Your task to perform on an android device: Show me productivity apps on the Play Store Image 0: 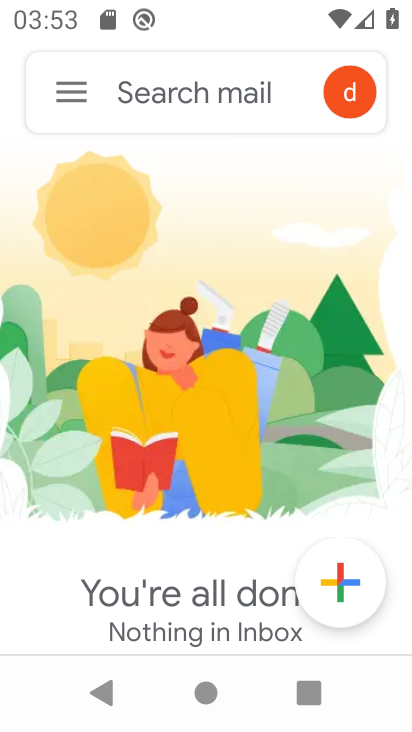
Step 0: drag from (392, 626) to (387, 271)
Your task to perform on an android device: Show me productivity apps on the Play Store Image 1: 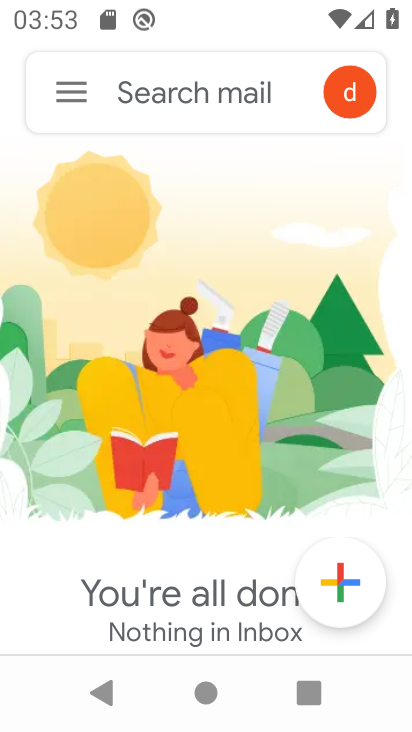
Step 1: press home button
Your task to perform on an android device: Show me productivity apps on the Play Store Image 2: 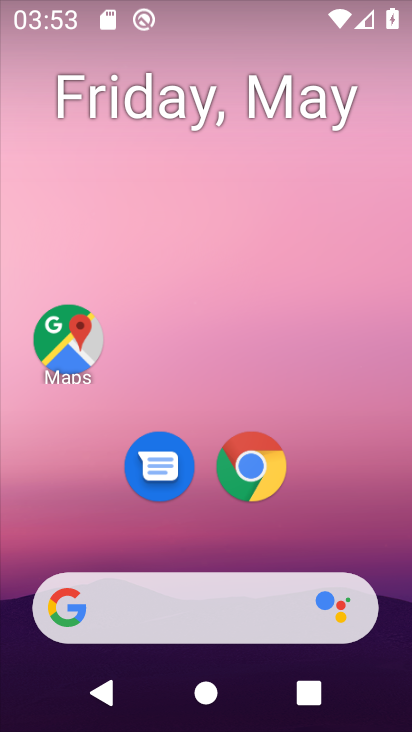
Step 2: click (362, 308)
Your task to perform on an android device: Show me productivity apps on the Play Store Image 3: 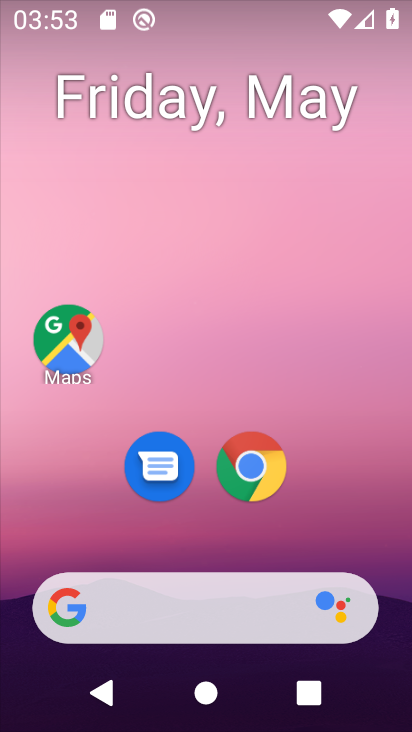
Step 3: drag from (389, 591) to (388, 275)
Your task to perform on an android device: Show me productivity apps on the Play Store Image 4: 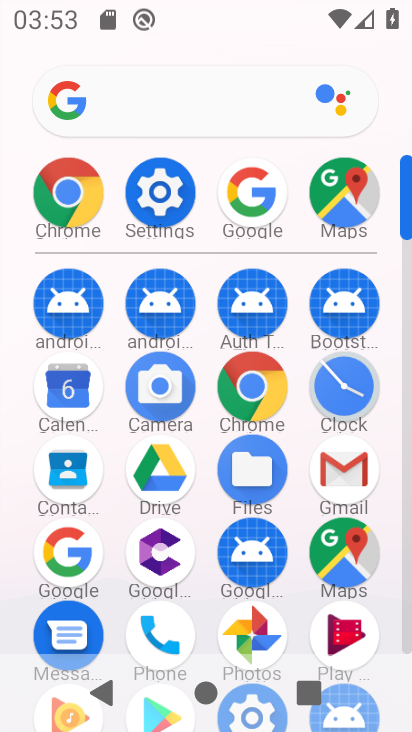
Step 4: drag from (399, 181) to (400, 72)
Your task to perform on an android device: Show me productivity apps on the Play Store Image 5: 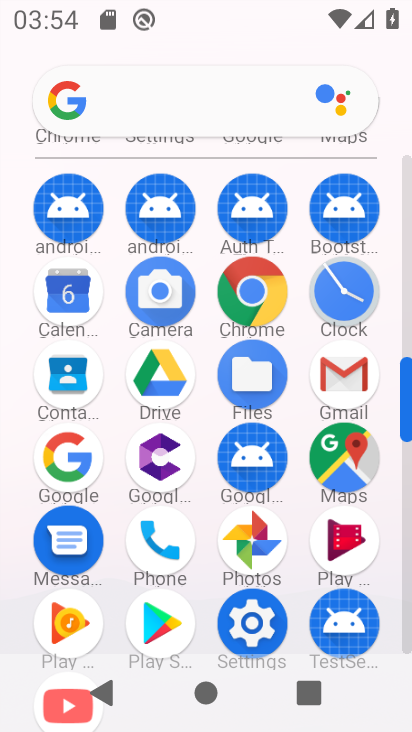
Step 5: click (168, 612)
Your task to perform on an android device: Show me productivity apps on the Play Store Image 6: 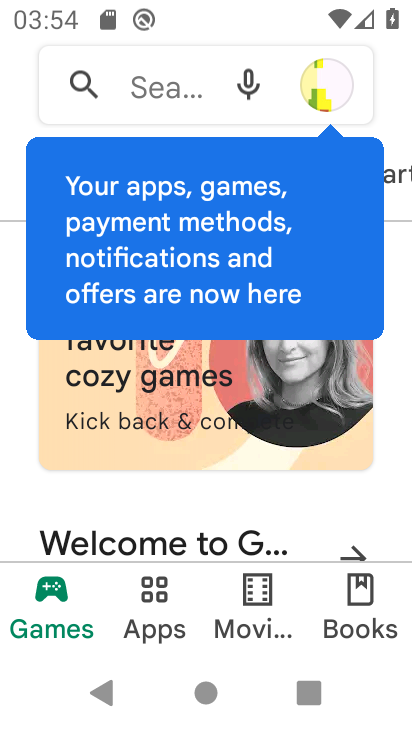
Step 6: click (192, 98)
Your task to perform on an android device: Show me productivity apps on the Play Store Image 7: 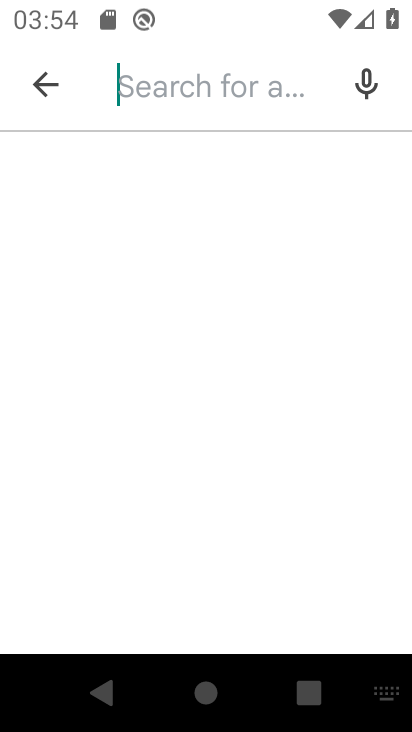
Step 7: type "productivity apps "
Your task to perform on an android device: Show me productivity apps on the Play Store Image 8: 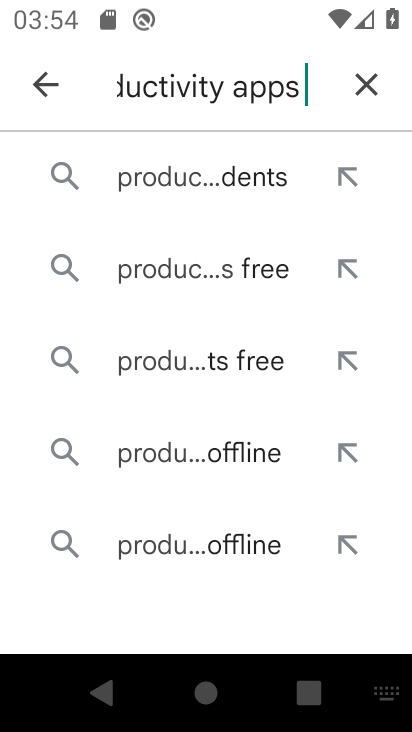
Step 8: task complete